Your task to perform on an android device: When is my next meeting? Image 0: 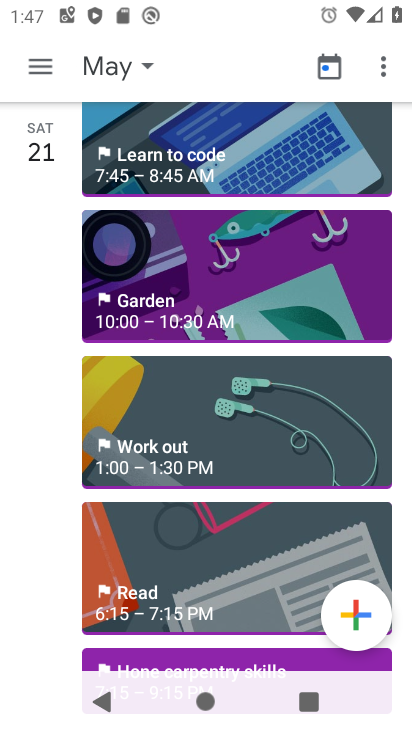
Step 0: drag from (258, 190) to (233, 653)
Your task to perform on an android device: When is my next meeting? Image 1: 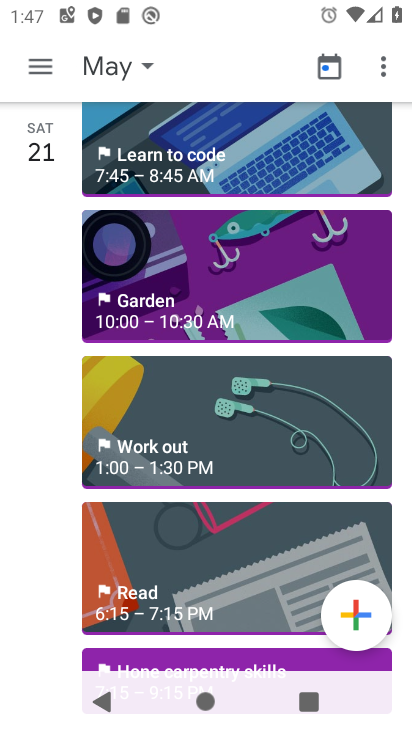
Step 1: drag from (270, 146) to (307, 491)
Your task to perform on an android device: When is my next meeting? Image 2: 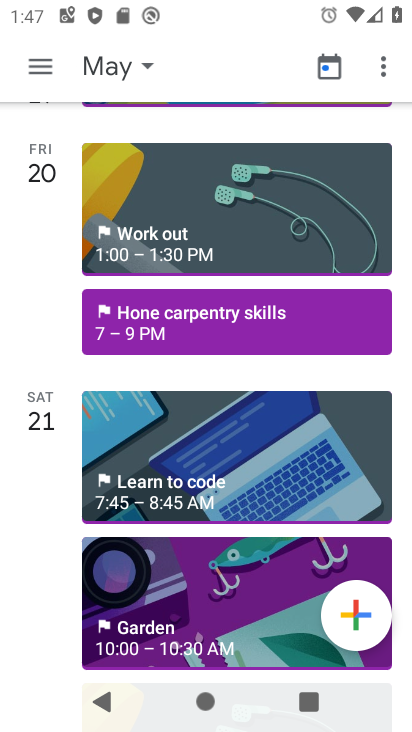
Step 2: drag from (233, 178) to (226, 620)
Your task to perform on an android device: When is my next meeting? Image 3: 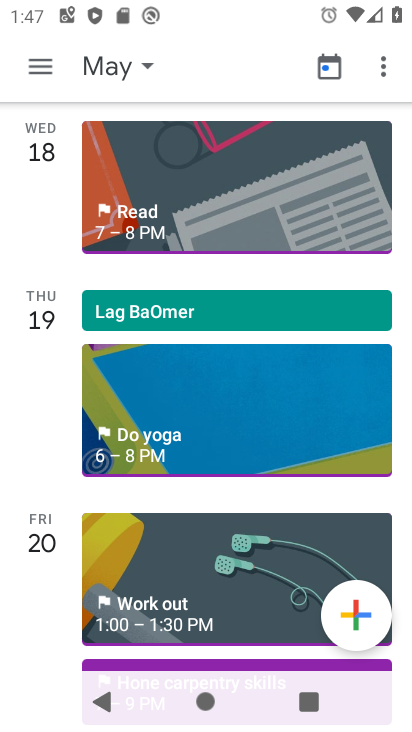
Step 3: drag from (183, 175) to (179, 660)
Your task to perform on an android device: When is my next meeting? Image 4: 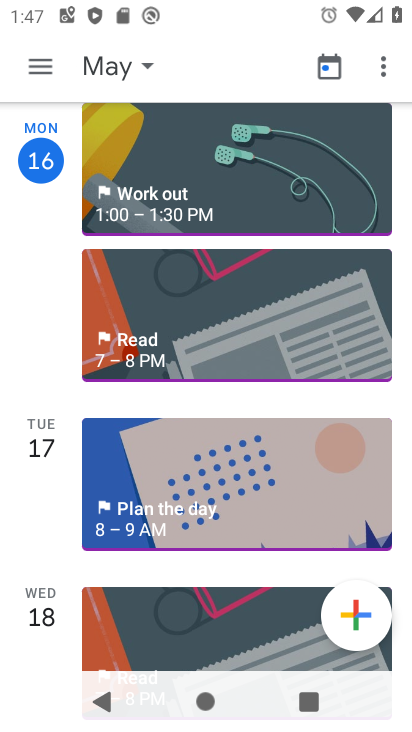
Step 4: drag from (208, 196) to (214, 600)
Your task to perform on an android device: When is my next meeting? Image 5: 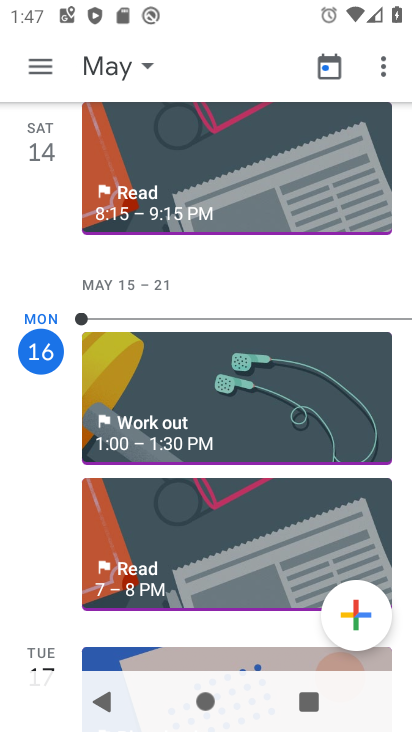
Step 5: click (223, 426)
Your task to perform on an android device: When is my next meeting? Image 6: 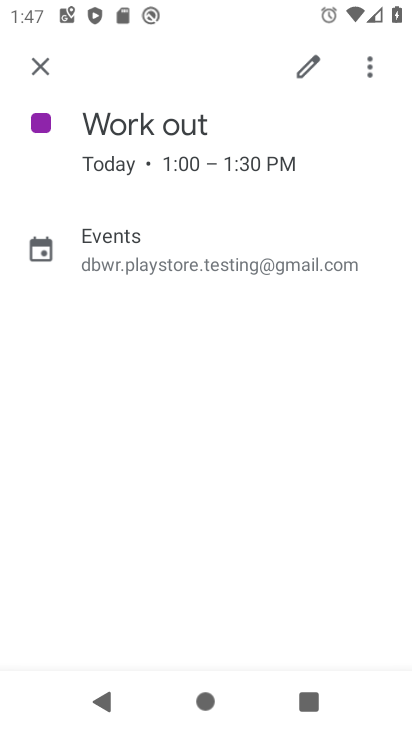
Step 6: task complete